Your task to perform on an android device: open a new tab in the chrome app Image 0: 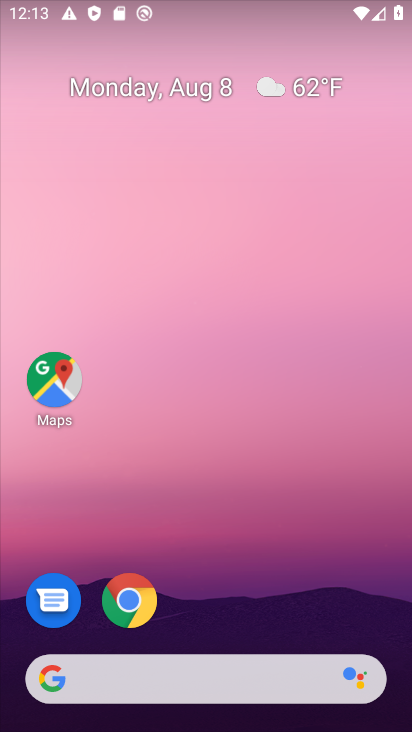
Step 0: click (153, 592)
Your task to perform on an android device: open a new tab in the chrome app Image 1: 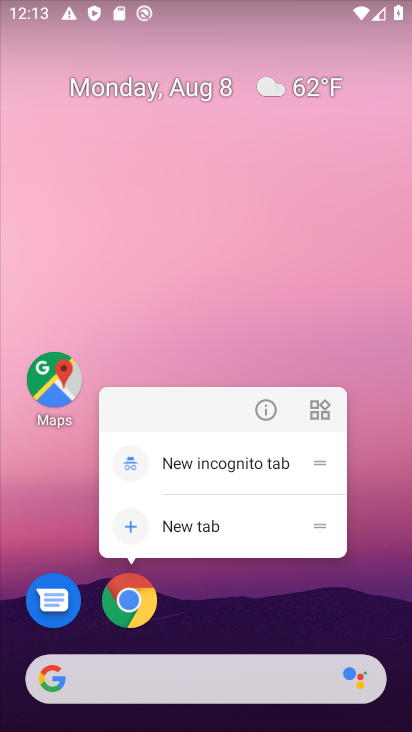
Step 1: click (153, 592)
Your task to perform on an android device: open a new tab in the chrome app Image 2: 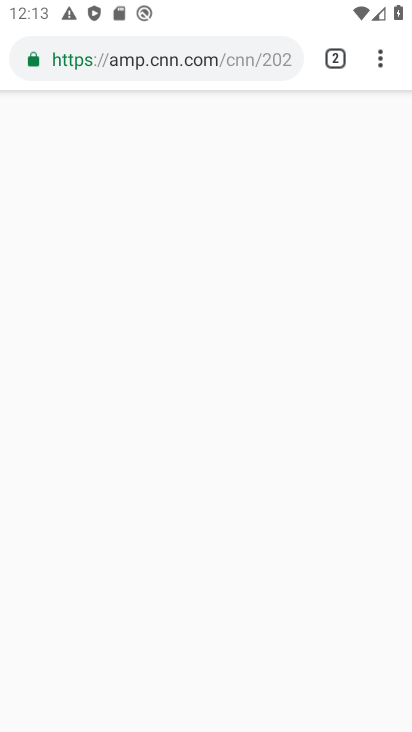
Step 2: click (338, 51)
Your task to perform on an android device: open a new tab in the chrome app Image 3: 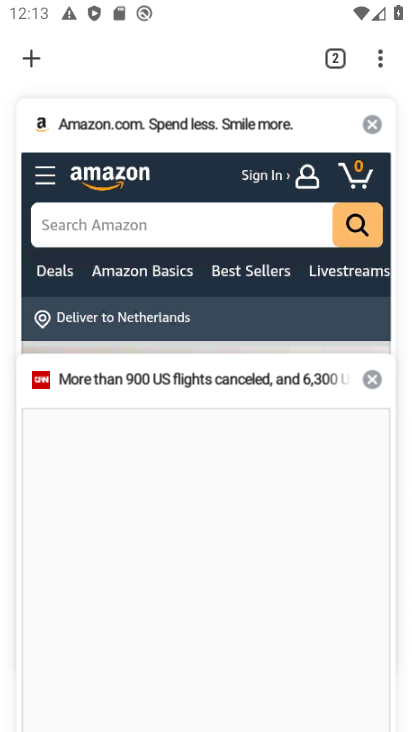
Step 3: click (38, 58)
Your task to perform on an android device: open a new tab in the chrome app Image 4: 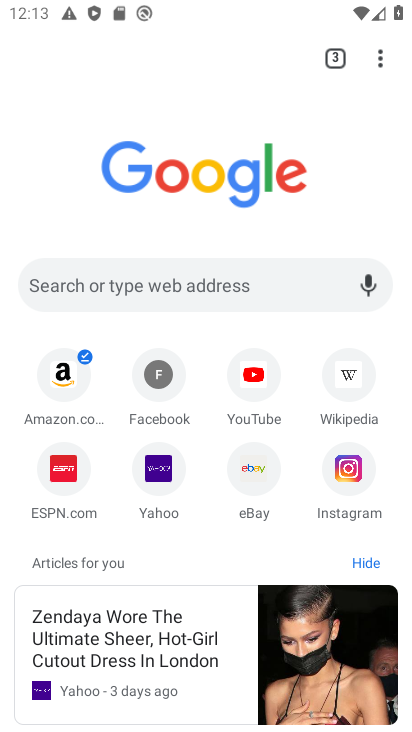
Step 4: task complete